Your task to perform on an android device: open a bookmark in the chrome app Image 0: 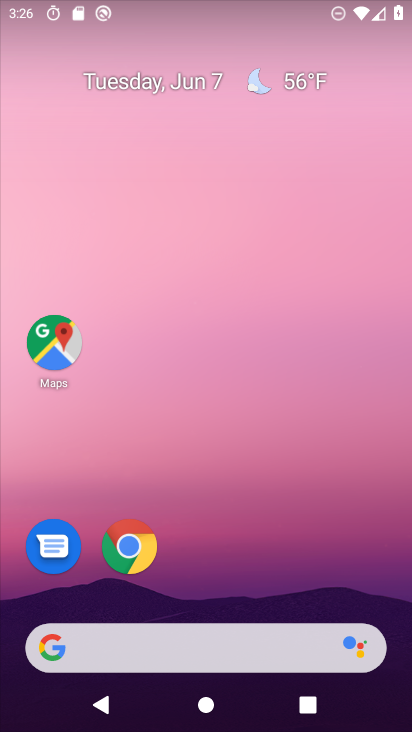
Step 0: drag from (248, 527) to (247, 80)
Your task to perform on an android device: open a bookmark in the chrome app Image 1: 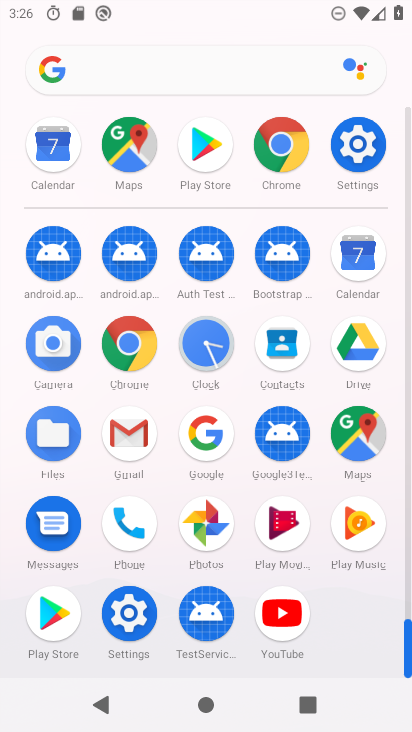
Step 1: drag from (28, 564) to (31, 325)
Your task to perform on an android device: open a bookmark in the chrome app Image 2: 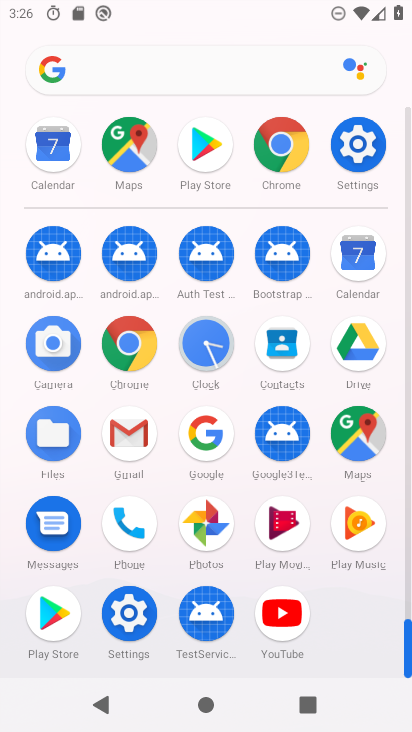
Step 2: click (127, 340)
Your task to perform on an android device: open a bookmark in the chrome app Image 3: 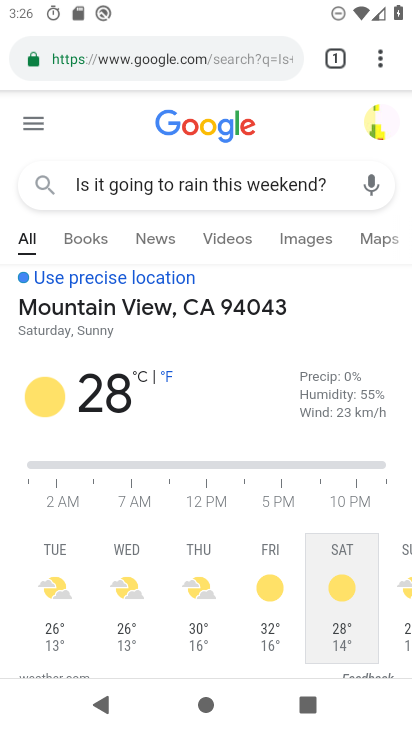
Step 3: drag from (381, 59) to (183, 218)
Your task to perform on an android device: open a bookmark in the chrome app Image 4: 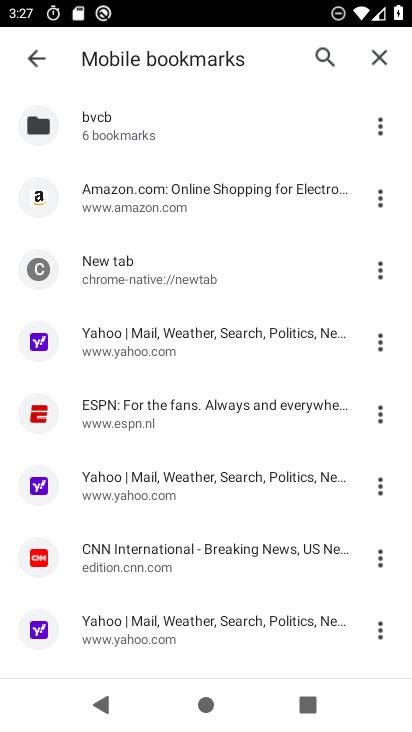
Step 4: click (160, 195)
Your task to perform on an android device: open a bookmark in the chrome app Image 5: 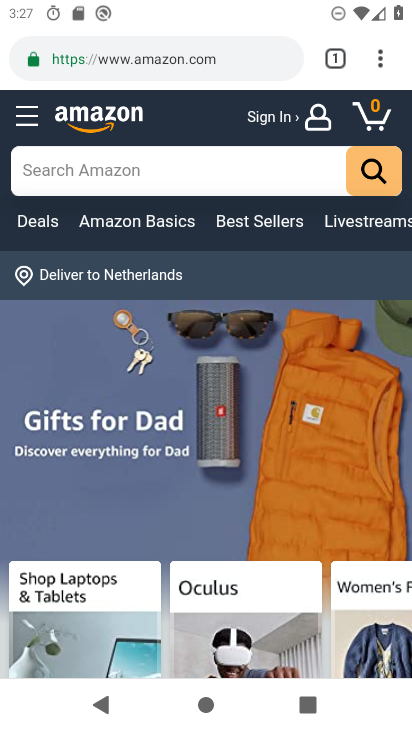
Step 5: task complete